Your task to perform on an android device: Find coffee shops on Maps Image 0: 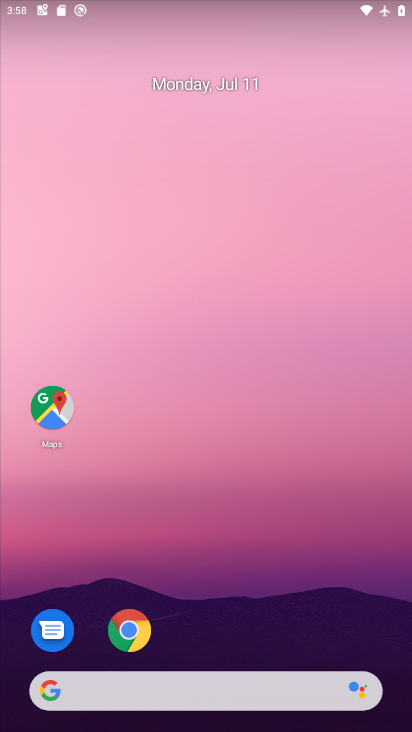
Step 0: press home button
Your task to perform on an android device: Find coffee shops on Maps Image 1: 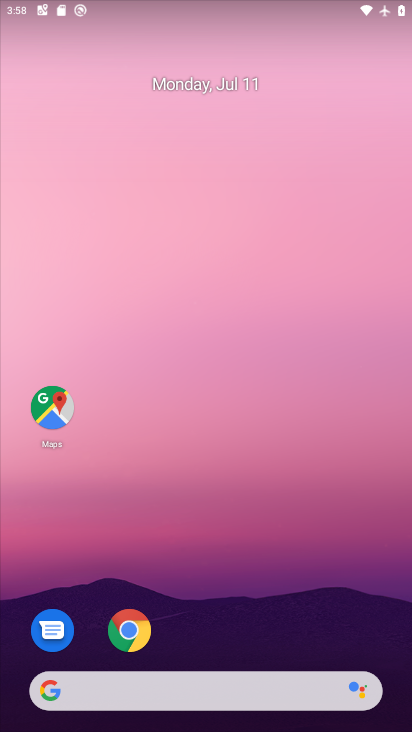
Step 1: click (225, 615)
Your task to perform on an android device: Find coffee shops on Maps Image 2: 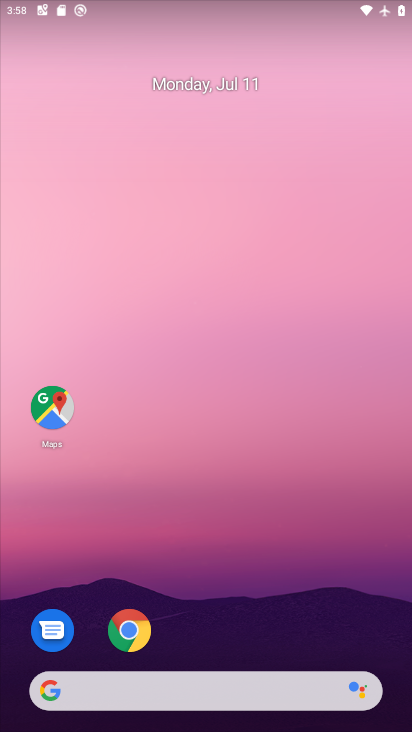
Step 2: click (56, 395)
Your task to perform on an android device: Find coffee shops on Maps Image 3: 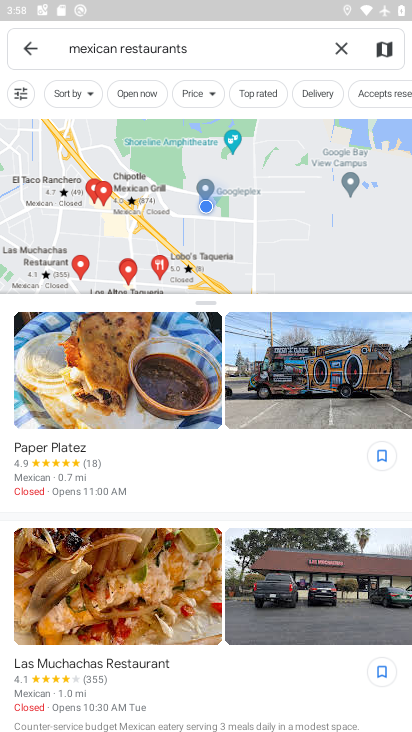
Step 3: click (337, 44)
Your task to perform on an android device: Find coffee shops on Maps Image 4: 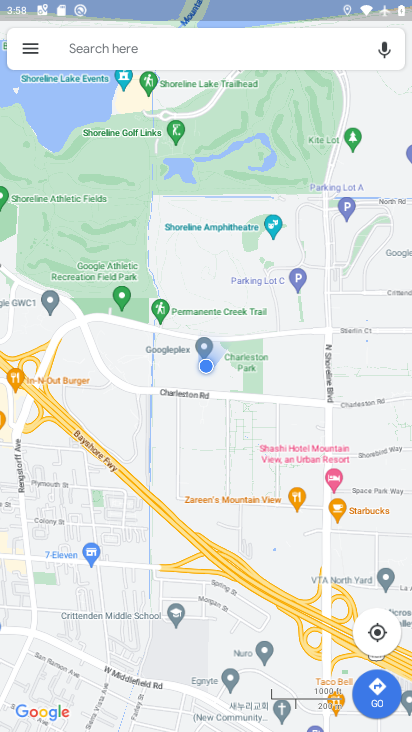
Step 4: click (337, 44)
Your task to perform on an android device: Find coffee shops on Maps Image 5: 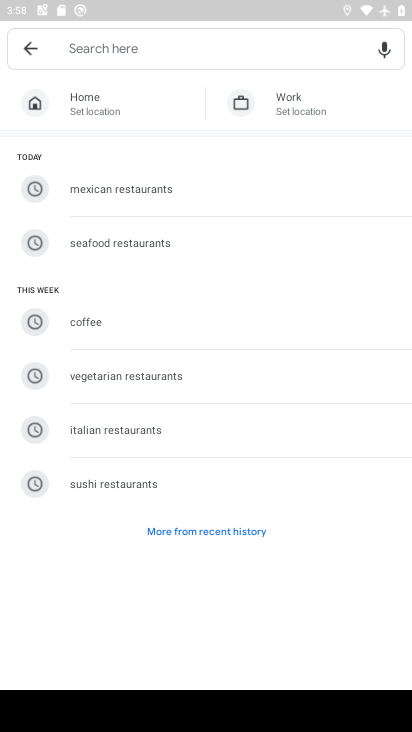
Step 5: click (223, 333)
Your task to perform on an android device: Find coffee shops on Maps Image 6: 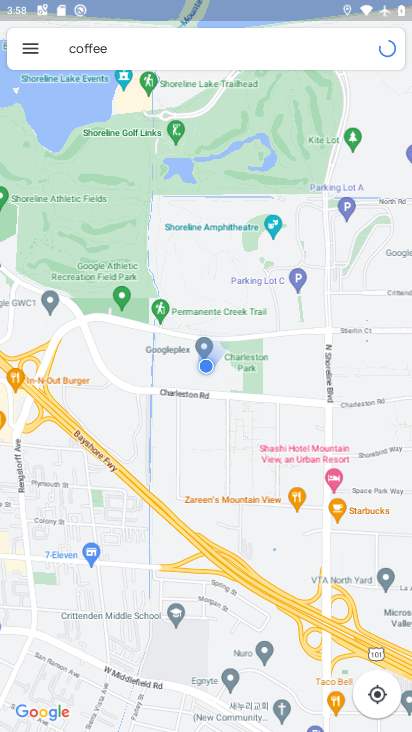
Step 6: task complete